Your task to perform on an android device: Open the web browser Image 0: 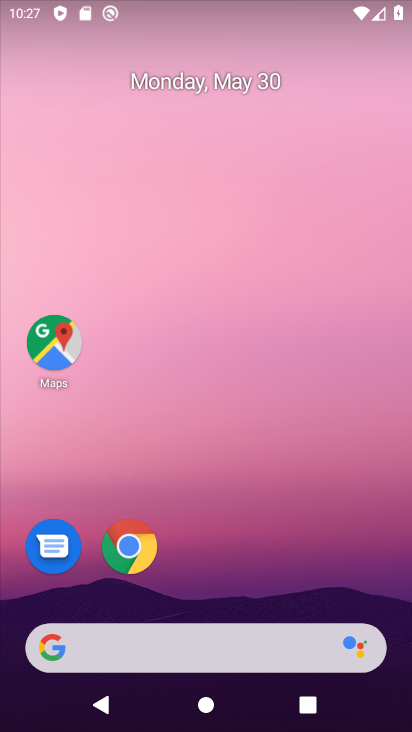
Step 0: press home button
Your task to perform on an android device: Open the web browser Image 1: 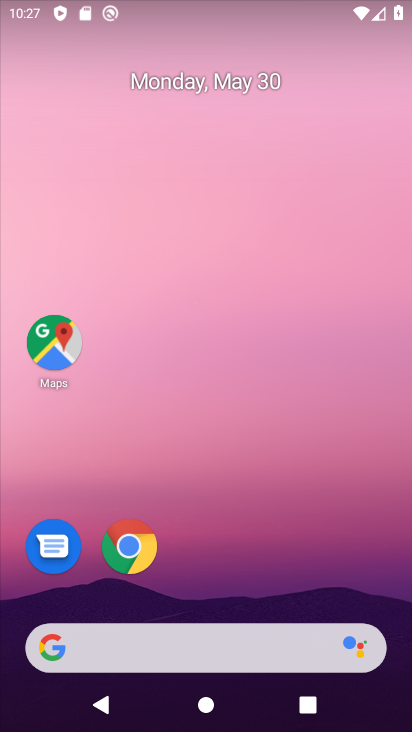
Step 1: click (126, 543)
Your task to perform on an android device: Open the web browser Image 2: 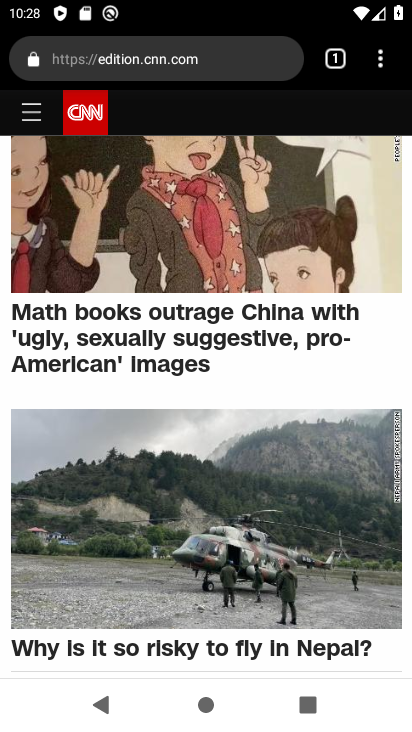
Step 2: click (325, 50)
Your task to perform on an android device: Open the web browser Image 3: 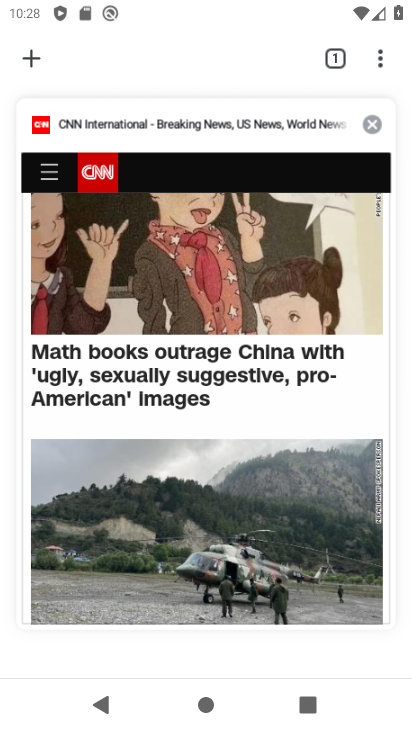
Step 3: click (368, 124)
Your task to perform on an android device: Open the web browser Image 4: 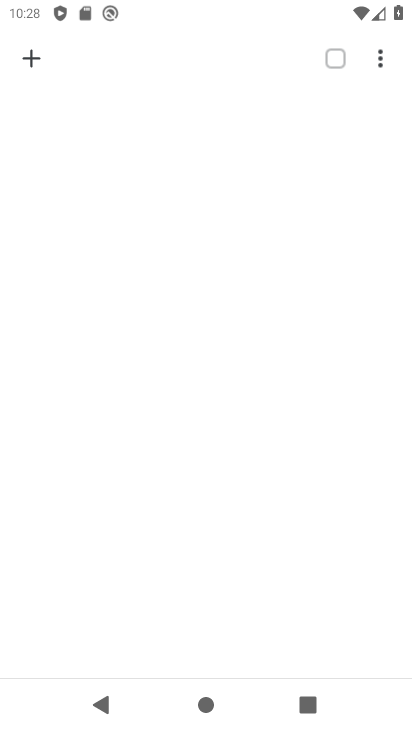
Step 4: click (31, 51)
Your task to perform on an android device: Open the web browser Image 5: 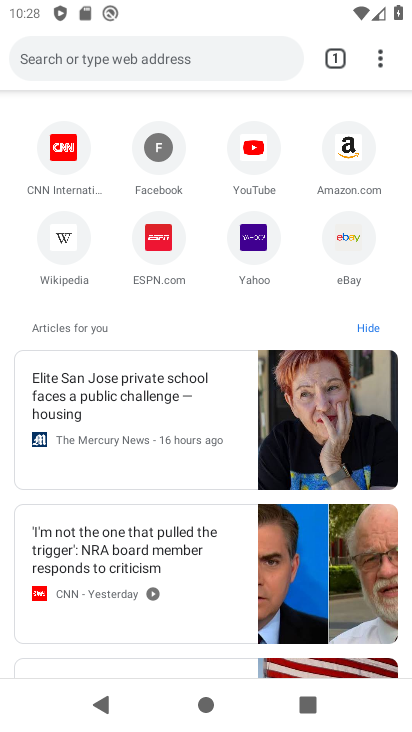
Step 5: task complete